Your task to perform on an android device: Open settings on Google Maps Image 0: 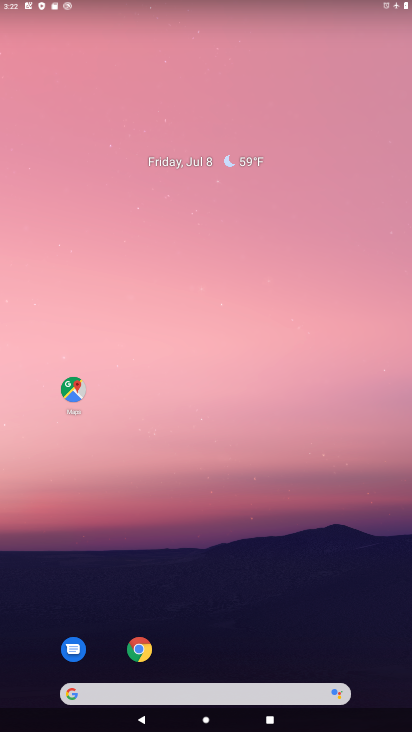
Step 0: drag from (277, 380) to (265, 95)
Your task to perform on an android device: Open settings on Google Maps Image 1: 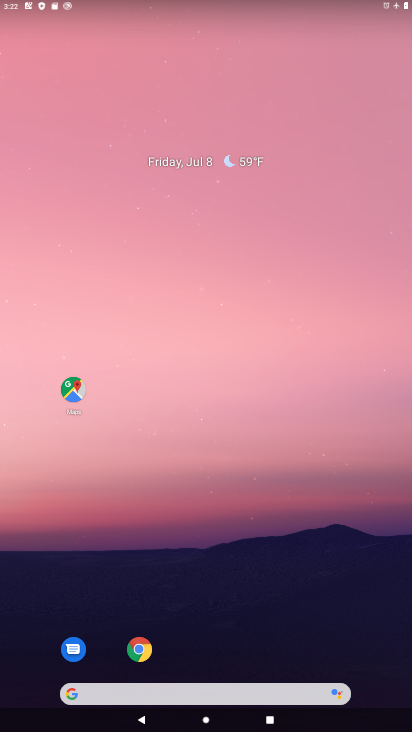
Step 1: drag from (365, 507) to (297, 48)
Your task to perform on an android device: Open settings on Google Maps Image 2: 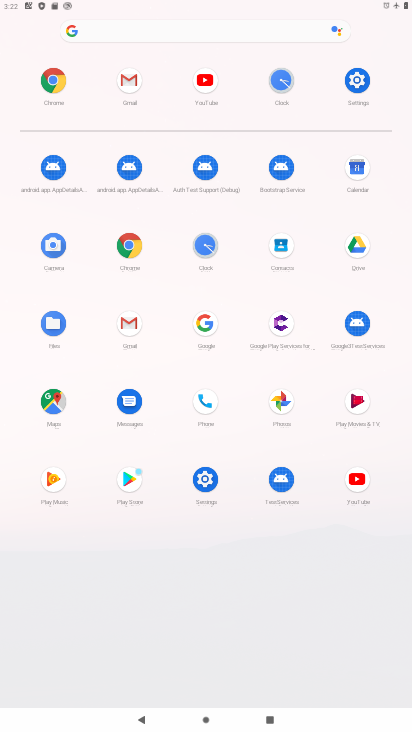
Step 2: click (50, 396)
Your task to perform on an android device: Open settings on Google Maps Image 3: 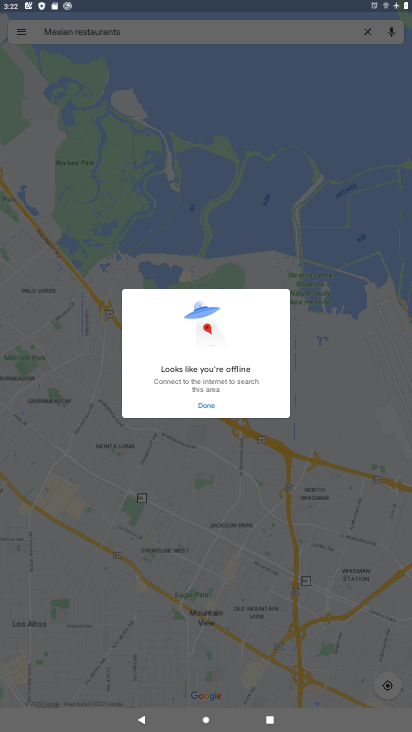
Step 3: click (26, 33)
Your task to perform on an android device: Open settings on Google Maps Image 4: 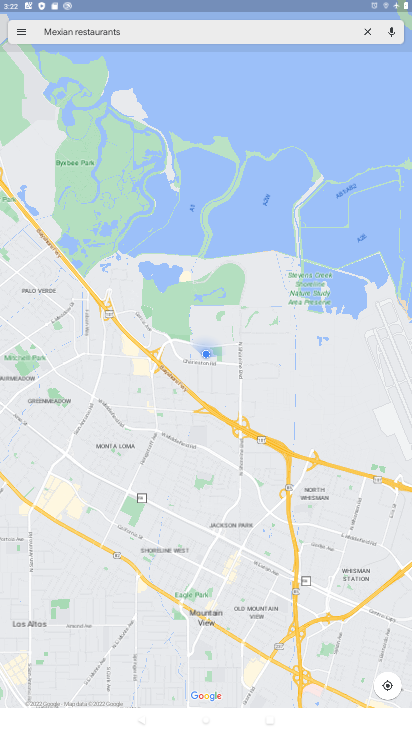
Step 4: click (26, 33)
Your task to perform on an android device: Open settings on Google Maps Image 5: 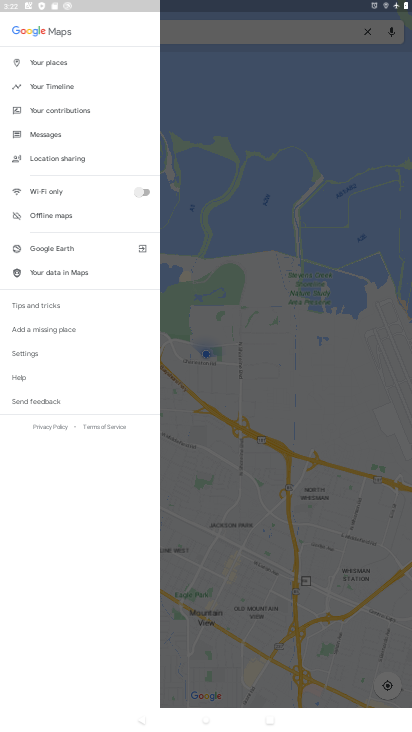
Step 5: click (38, 353)
Your task to perform on an android device: Open settings on Google Maps Image 6: 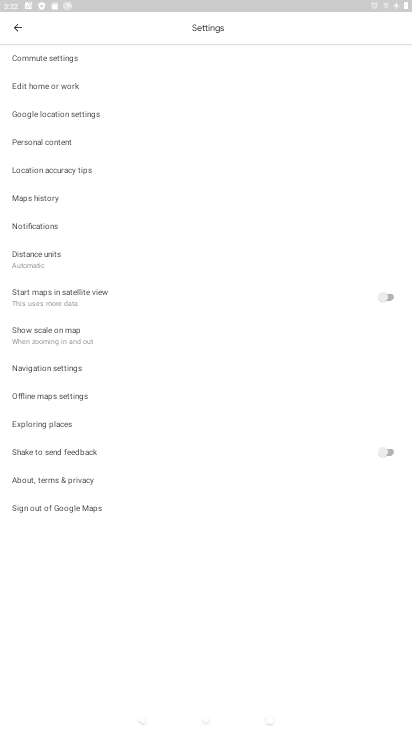
Step 6: task complete